Your task to perform on an android device: Open Wikipedia Image 0: 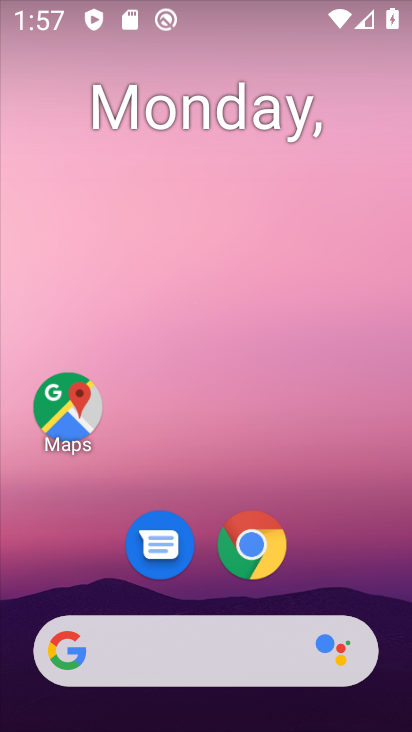
Step 0: click (274, 545)
Your task to perform on an android device: Open Wikipedia Image 1: 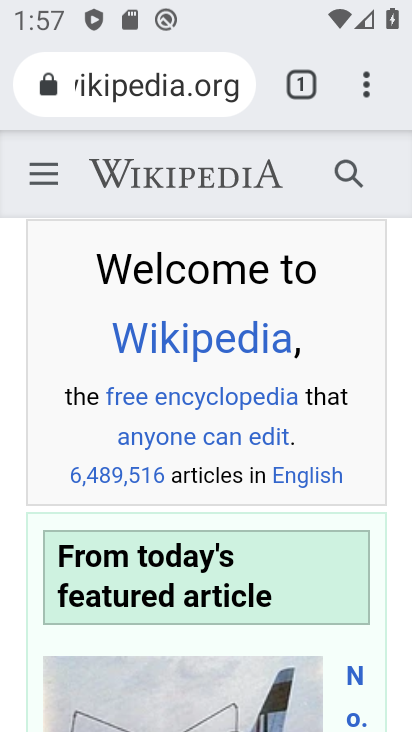
Step 1: task complete